Your task to perform on an android device: Open wifi settings Image 0: 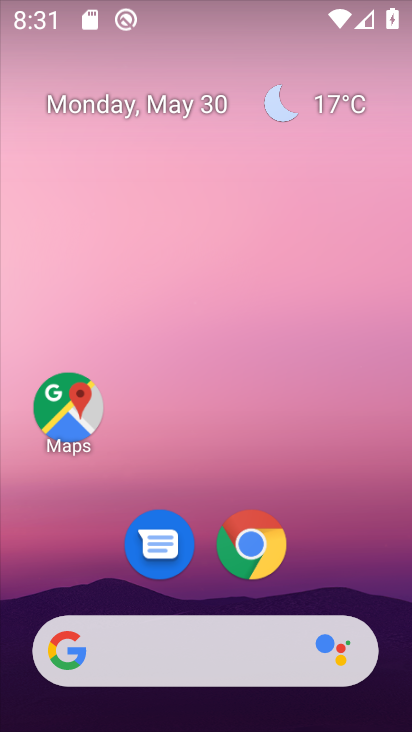
Step 0: drag from (329, 562) to (248, 86)
Your task to perform on an android device: Open wifi settings Image 1: 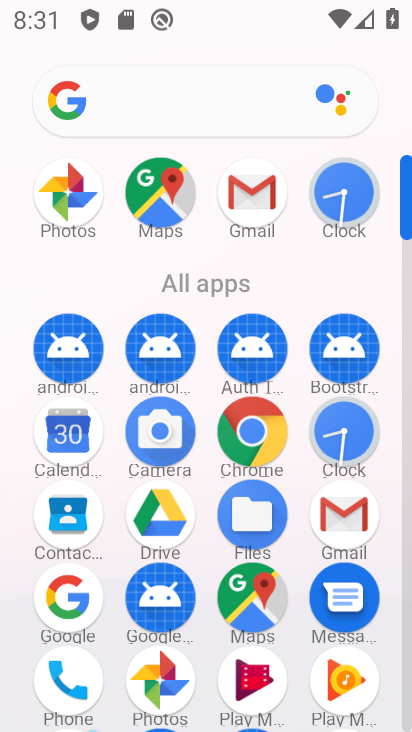
Step 1: drag from (206, 465) to (189, 216)
Your task to perform on an android device: Open wifi settings Image 2: 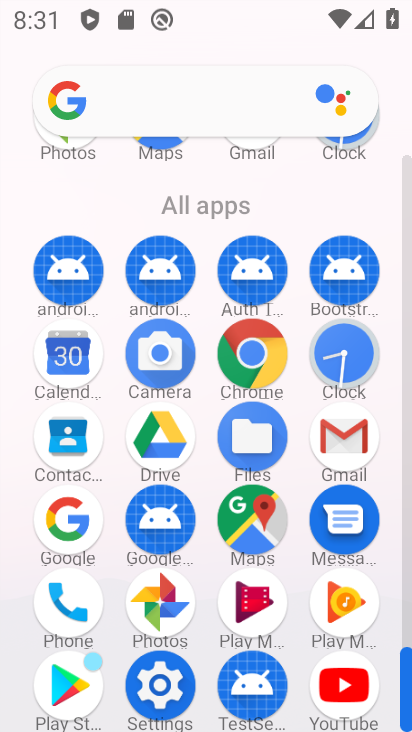
Step 2: click (156, 685)
Your task to perform on an android device: Open wifi settings Image 3: 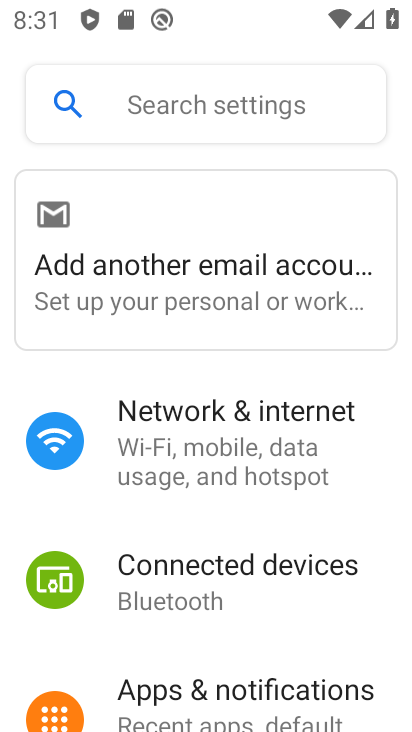
Step 3: click (184, 421)
Your task to perform on an android device: Open wifi settings Image 4: 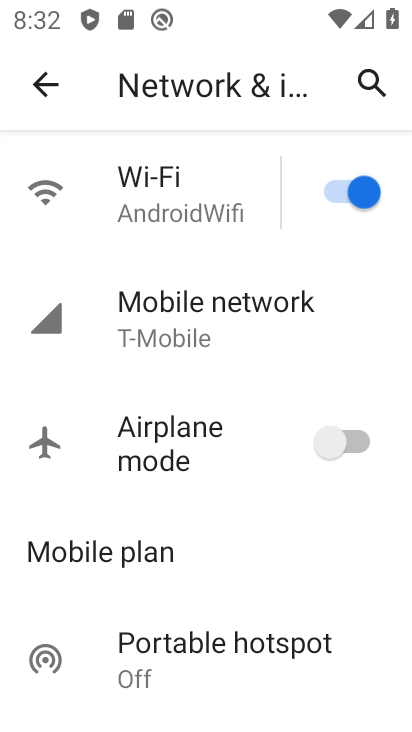
Step 4: click (147, 218)
Your task to perform on an android device: Open wifi settings Image 5: 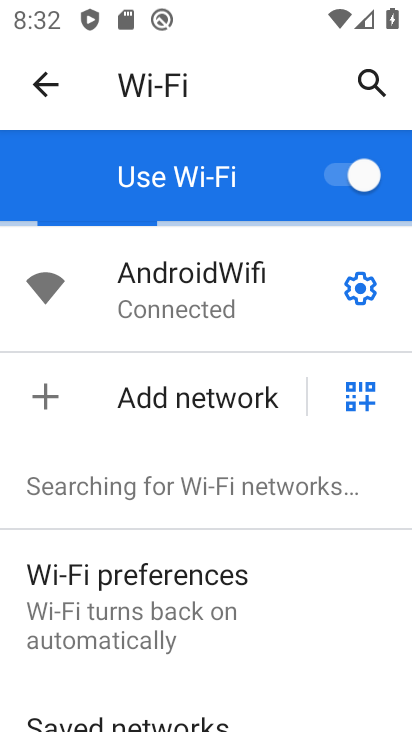
Step 5: click (357, 291)
Your task to perform on an android device: Open wifi settings Image 6: 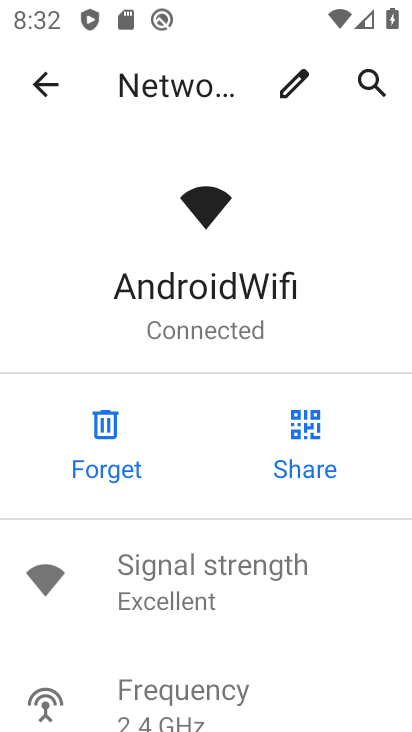
Step 6: task complete